Your task to perform on an android device: What's on my calendar tomorrow? Image 0: 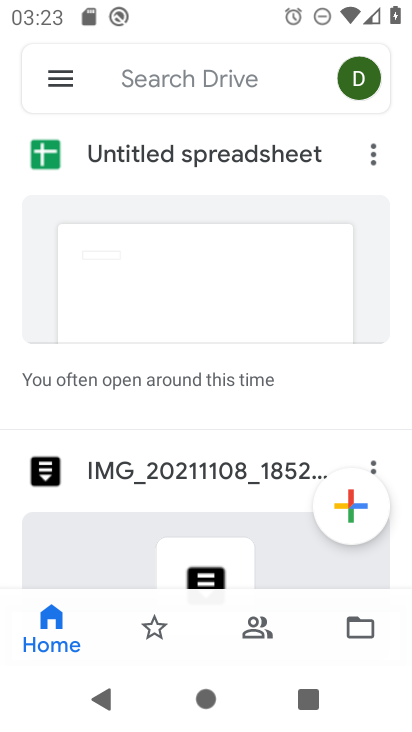
Step 0: press home button
Your task to perform on an android device: What's on my calendar tomorrow? Image 1: 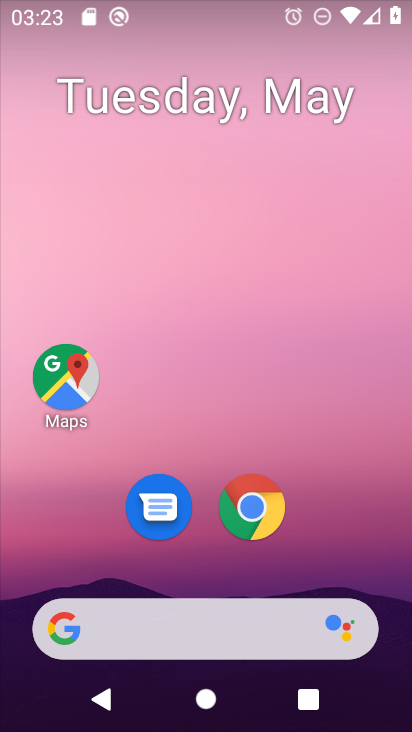
Step 1: drag from (228, 585) to (222, 254)
Your task to perform on an android device: What's on my calendar tomorrow? Image 2: 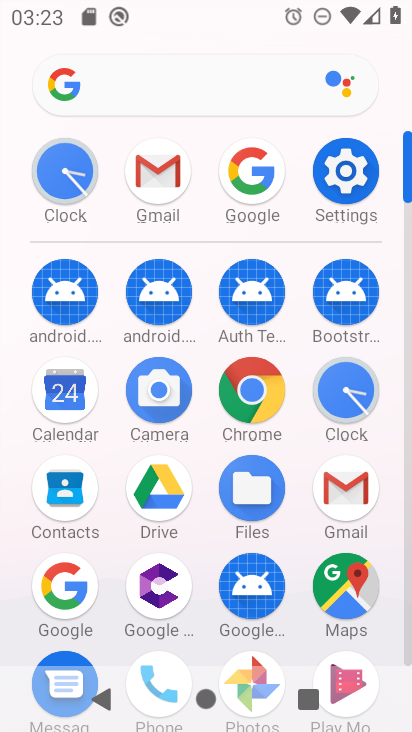
Step 2: click (72, 405)
Your task to perform on an android device: What's on my calendar tomorrow? Image 3: 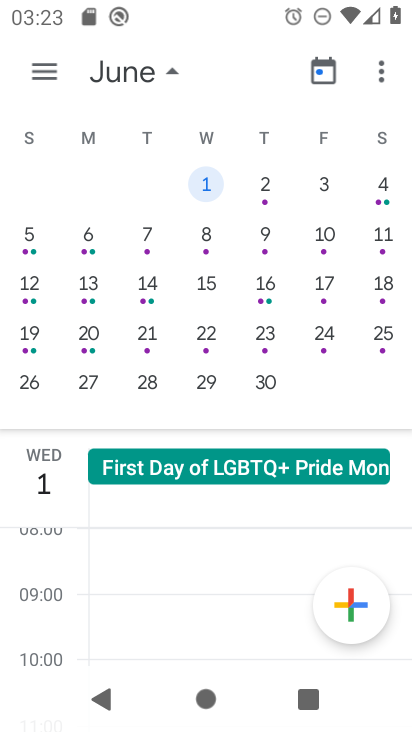
Step 3: drag from (108, 259) to (354, 266)
Your task to perform on an android device: What's on my calendar tomorrow? Image 4: 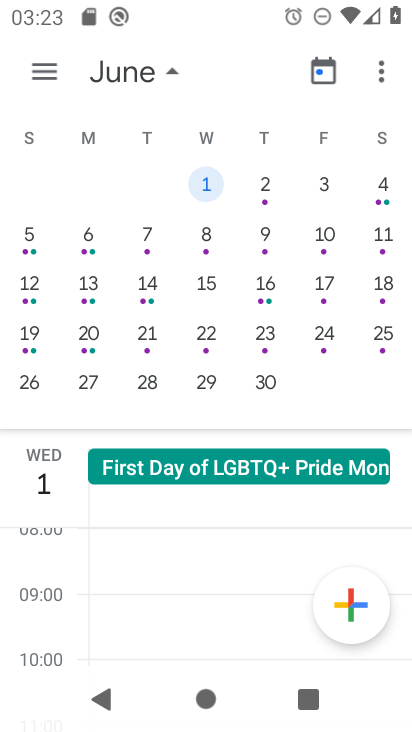
Step 4: drag from (50, 243) to (318, 252)
Your task to perform on an android device: What's on my calendar tomorrow? Image 5: 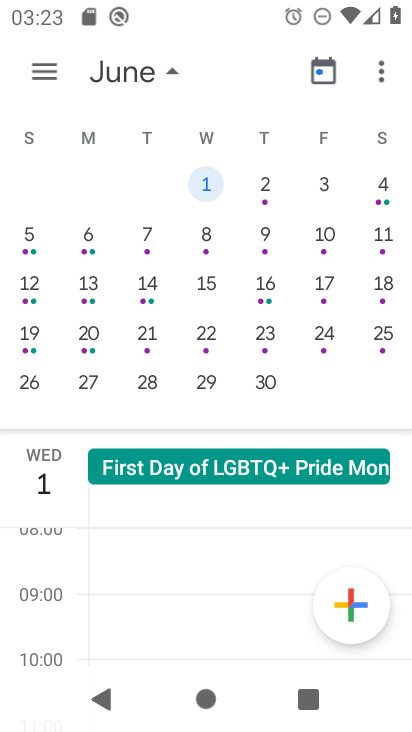
Step 5: drag from (55, 275) to (363, 289)
Your task to perform on an android device: What's on my calendar tomorrow? Image 6: 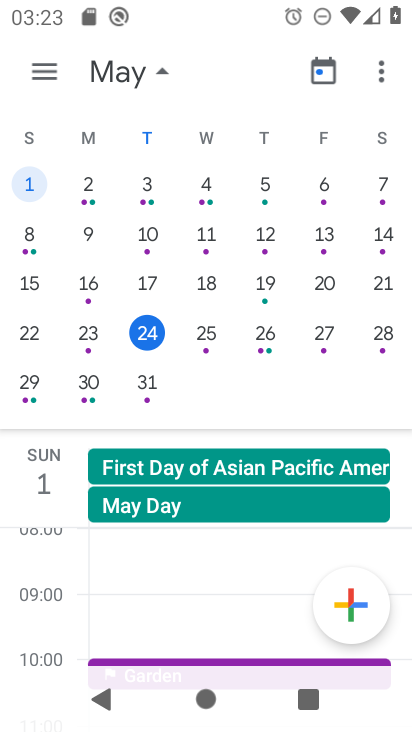
Step 6: click (203, 327)
Your task to perform on an android device: What's on my calendar tomorrow? Image 7: 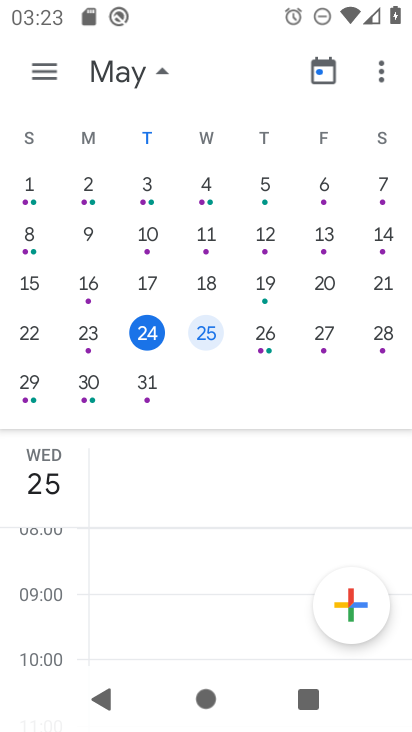
Step 7: task complete